Your task to perform on an android device: What is the speed of a cheetah? Image 0: 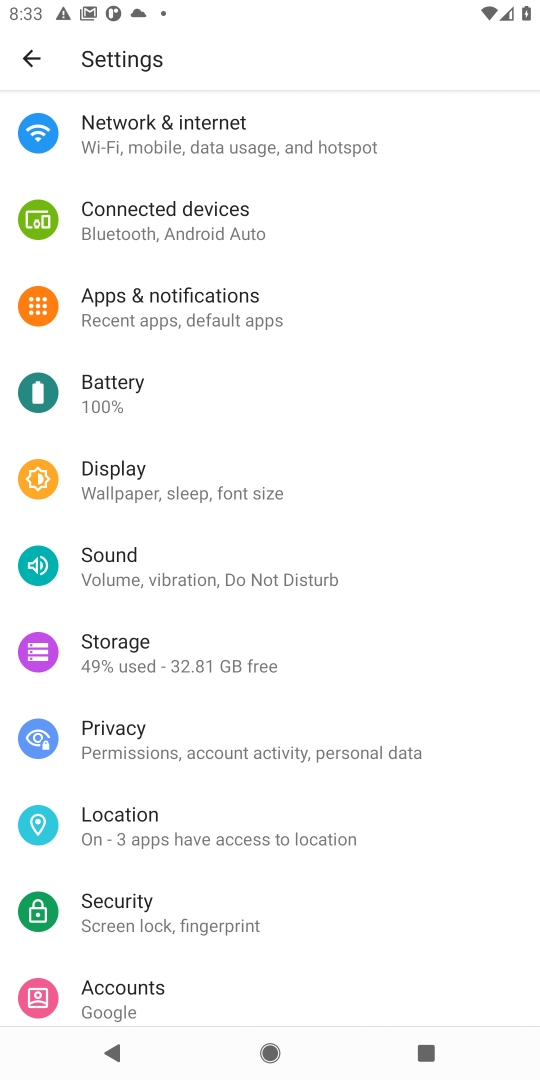
Step 0: press home button
Your task to perform on an android device: What is the speed of a cheetah? Image 1: 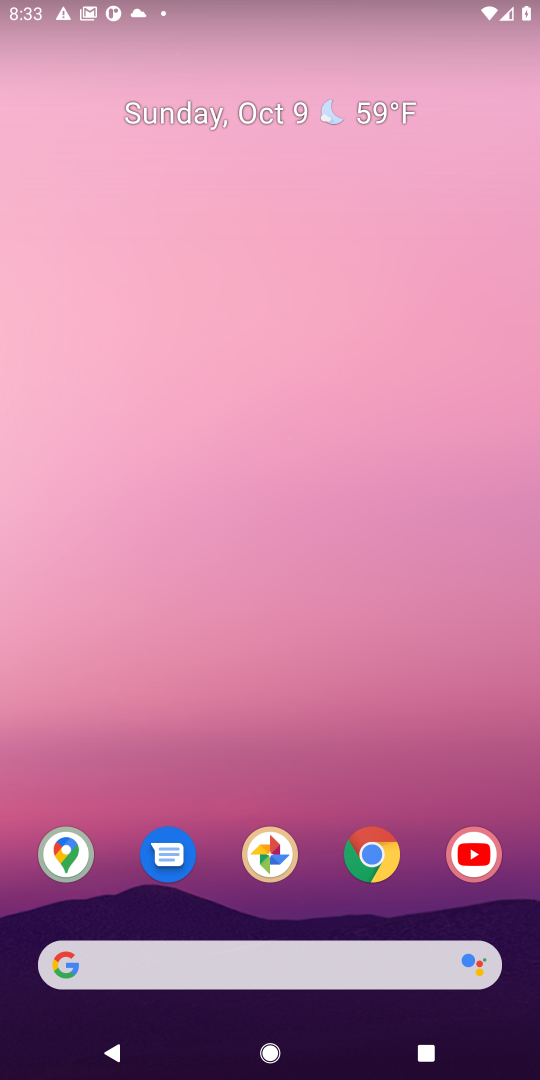
Step 1: drag from (310, 916) to (362, 228)
Your task to perform on an android device: What is the speed of a cheetah? Image 2: 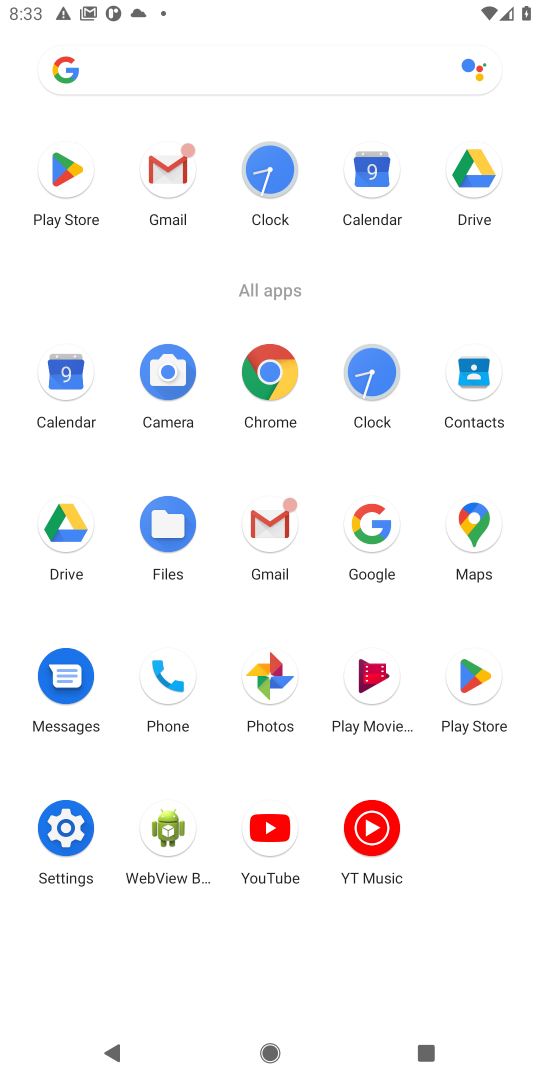
Step 2: click (260, 373)
Your task to perform on an android device: What is the speed of a cheetah? Image 3: 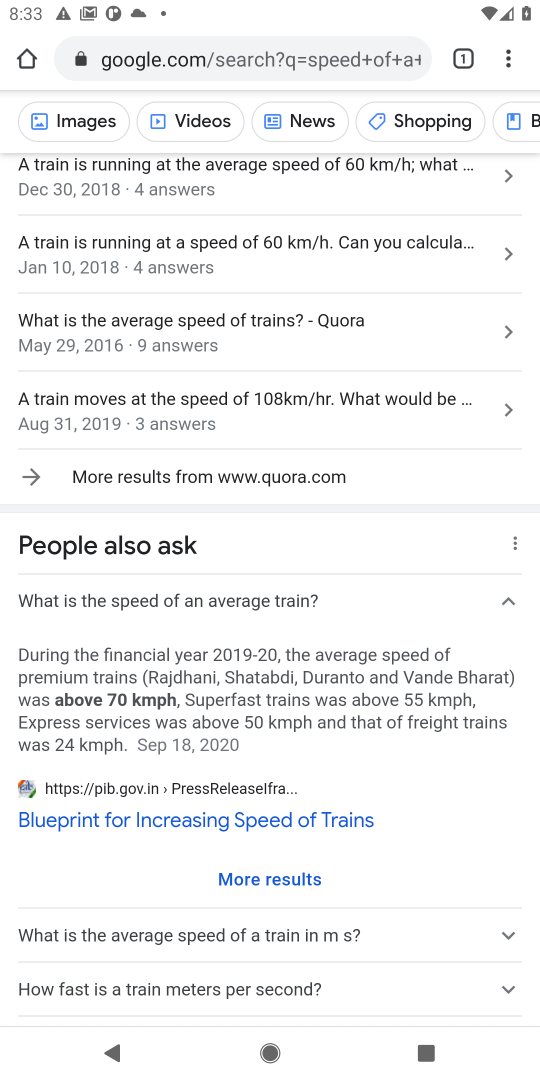
Step 3: drag from (390, 325) to (313, 819)
Your task to perform on an android device: What is the speed of a cheetah? Image 4: 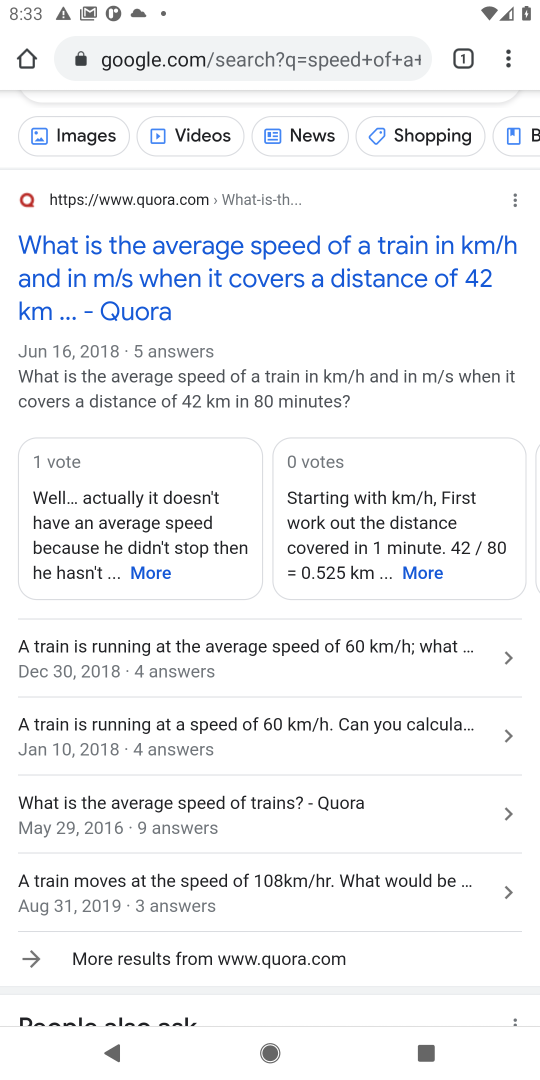
Step 4: drag from (283, 189) to (279, 762)
Your task to perform on an android device: What is the speed of a cheetah? Image 5: 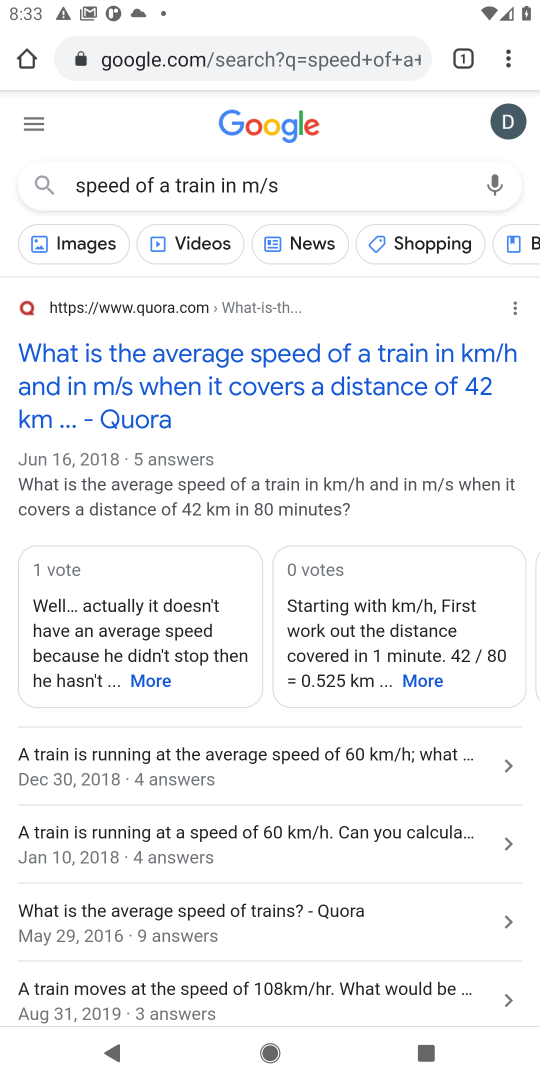
Step 5: click (336, 186)
Your task to perform on an android device: What is the speed of a cheetah? Image 6: 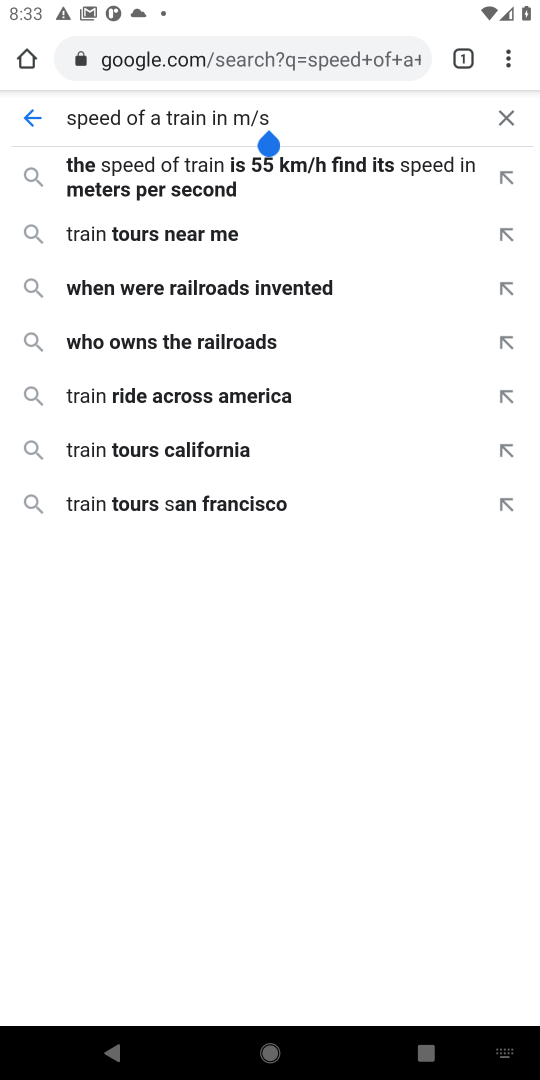
Step 6: click (506, 116)
Your task to perform on an android device: What is the speed of a cheetah? Image 7: 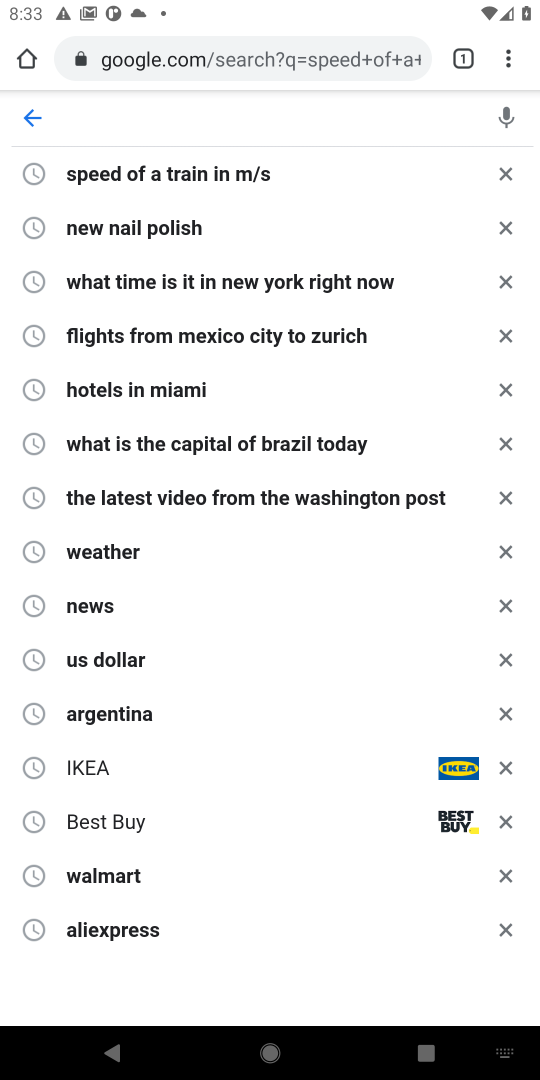
Step 7: type "What is the speed of a cheetah?"
Your task to perform on an android device: What is the speed of a cheetah? Image 8: 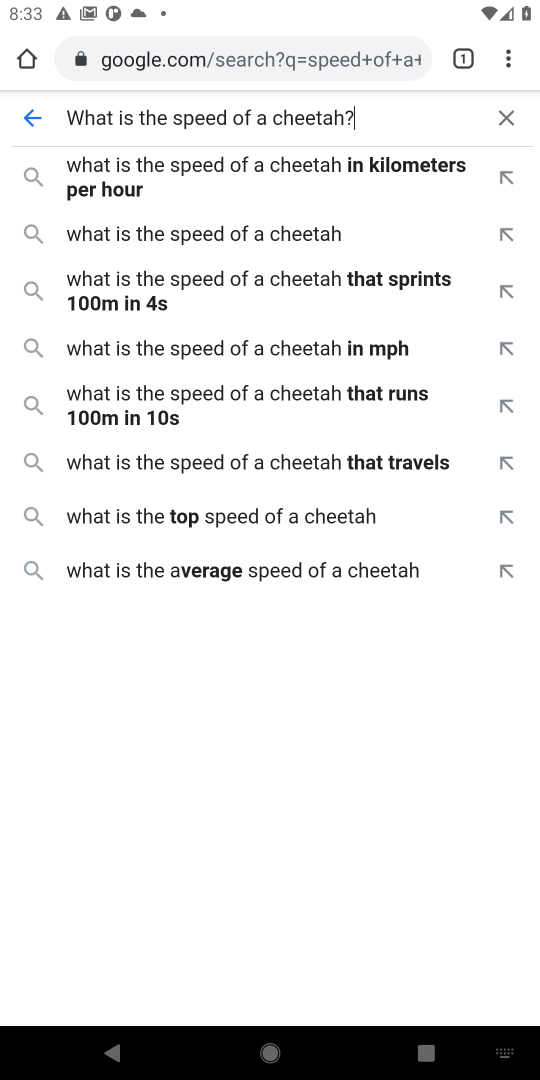
Step 8: type ""
Your task to perform on an android device: What is the speed of a cheetah? Image 9: 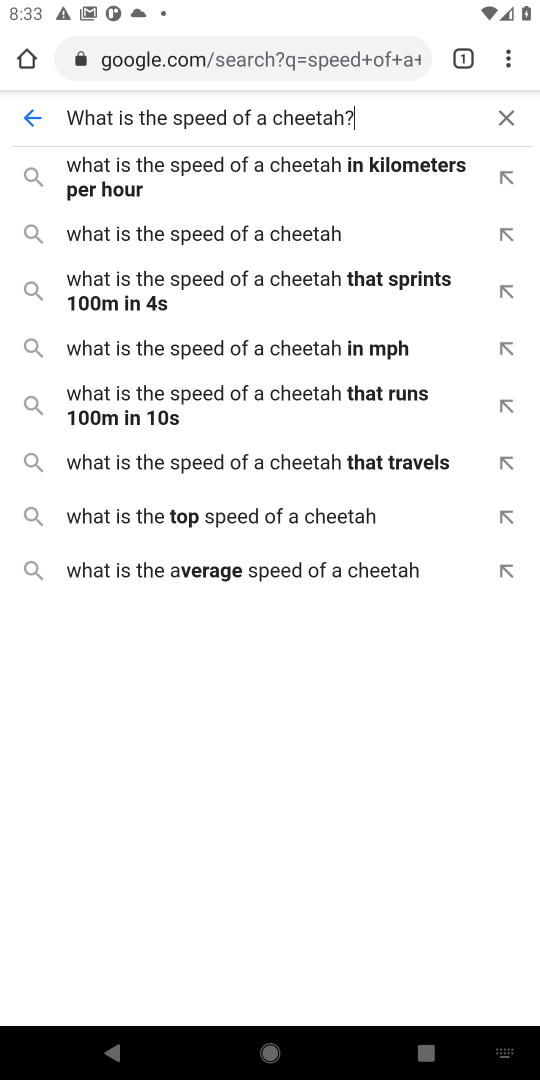
Step 9: click (227, 232)
Your task to perform on an android device: What is the speed of a cheetah? Image 10: 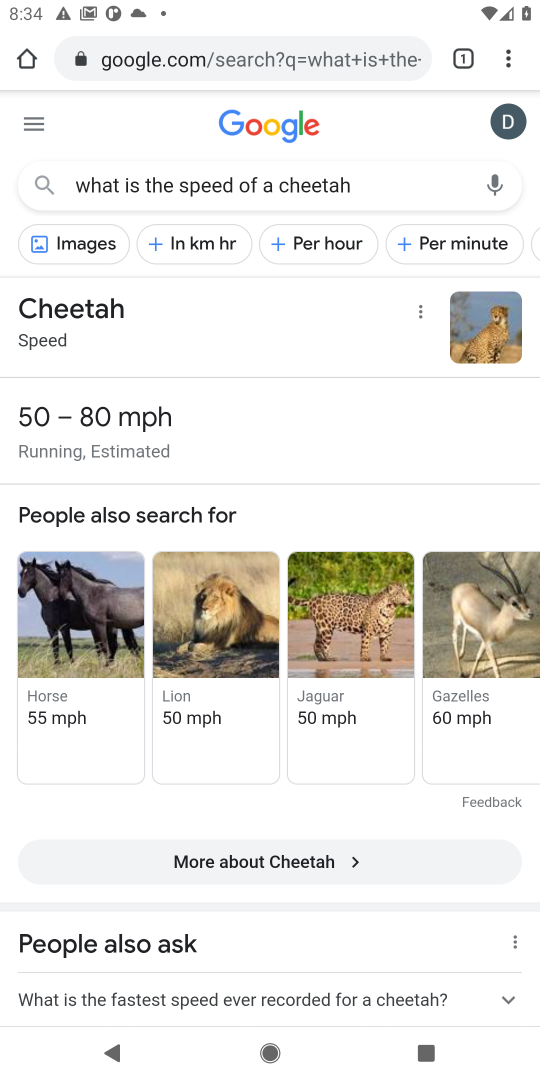
Step 10: task complete